Your task to perform on an android device: Go to Maps Image 0: 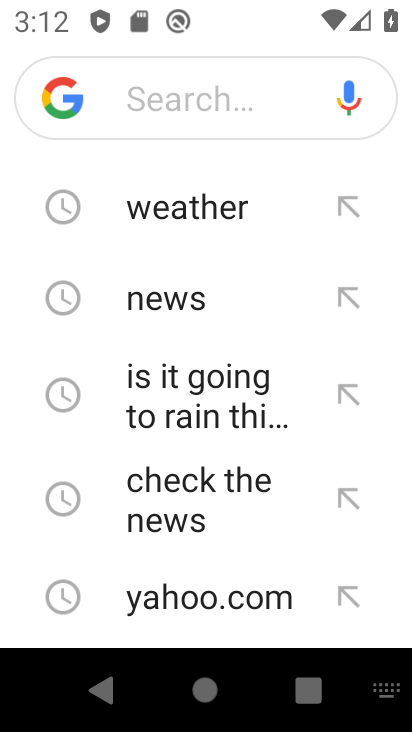
Step 0: press home button
Your task to perform on an android device: Go to Maps Image 1: 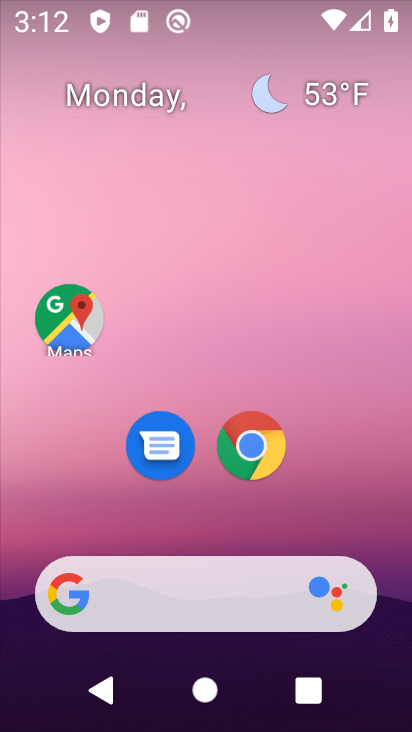
Step 1: click (68, 344)
Your task to perform on an android device: Go to Maps Image 2: 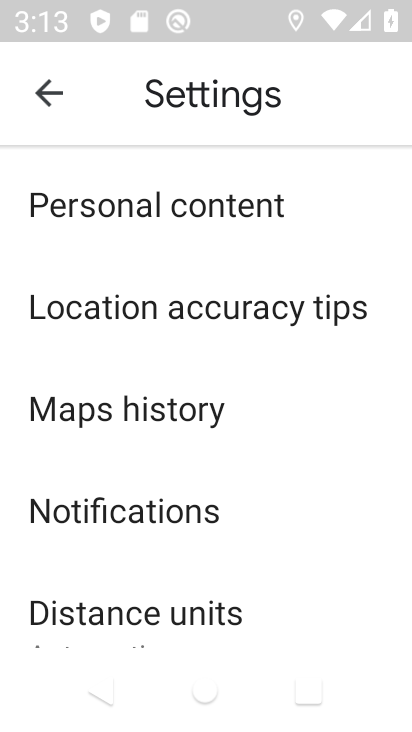
Step 2: drag from (145, 402) to (144, 211)
Your task to perform on an android device: Go to Maps Image 3: 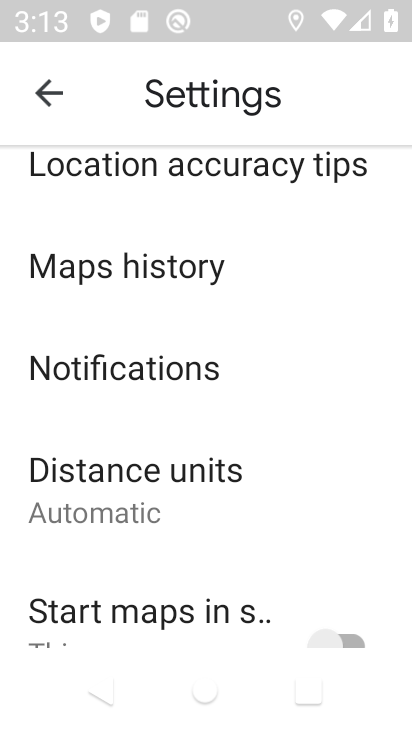
Step 3: click (57, 98)
Your task to perform on an android device: Go to Maps Image 4: 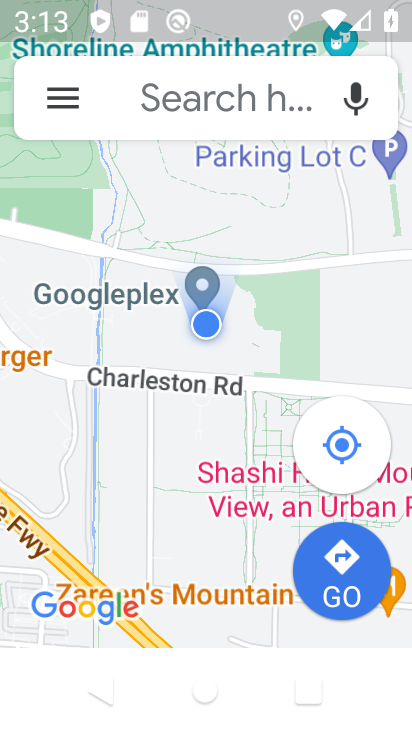
Step 4: task complete